Your task to perform on an android device: Open Google Chrome and open the bookmarks view Image 0: 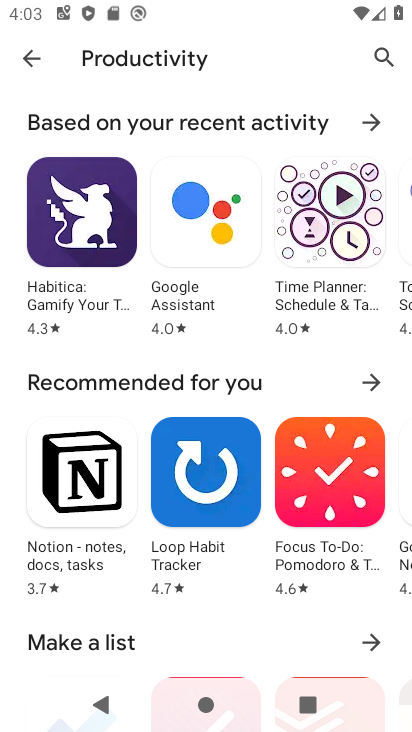
Step 0: press home button
Your task to perform on an android device: Open Google Chrome and open the bookmarks view Image 1: 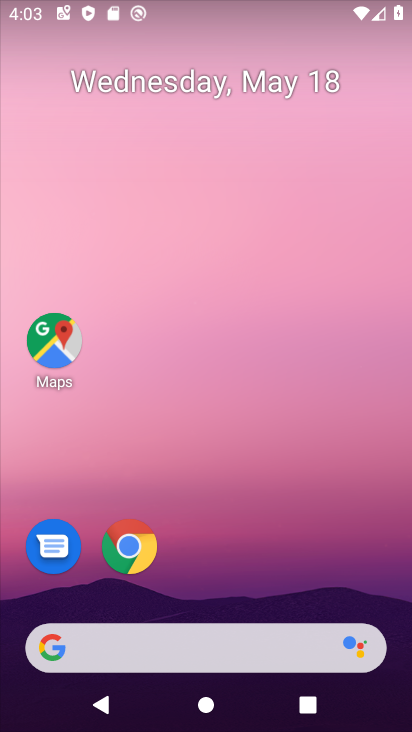
Step 1: click (138, 554)
Your task to perform on an android device: Open Google Chrome and open the bookmarks view Image 2: 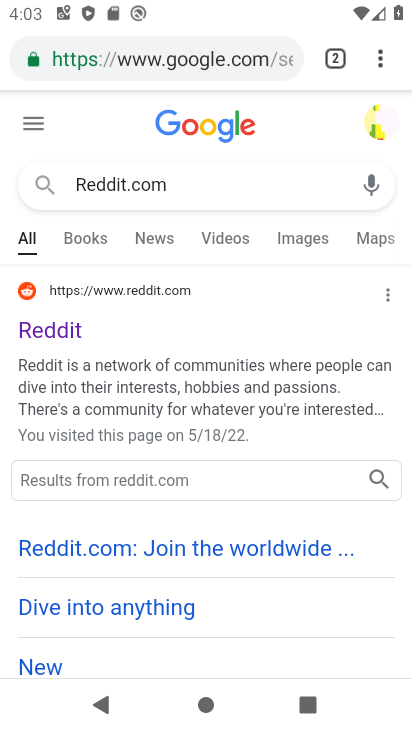
Step 2: click (384, 59)
Your task to perform on an android device: Open Google Chrome and open the bookmarks view Image 3: 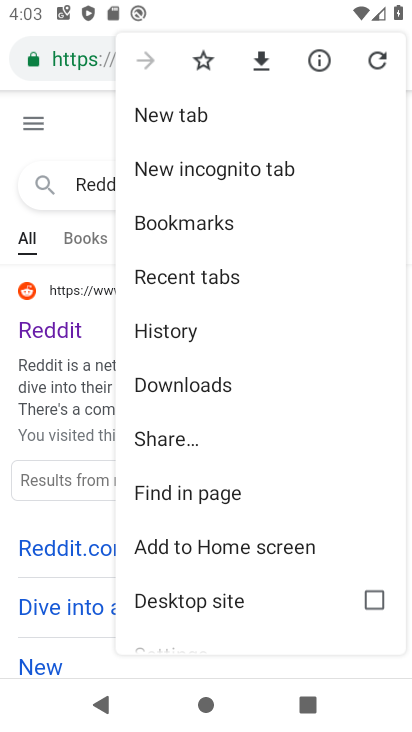
Step 3: click (227, 232)
Your task to perform on an android device: Open Google Chrome and open the bookmarks view Image 4: 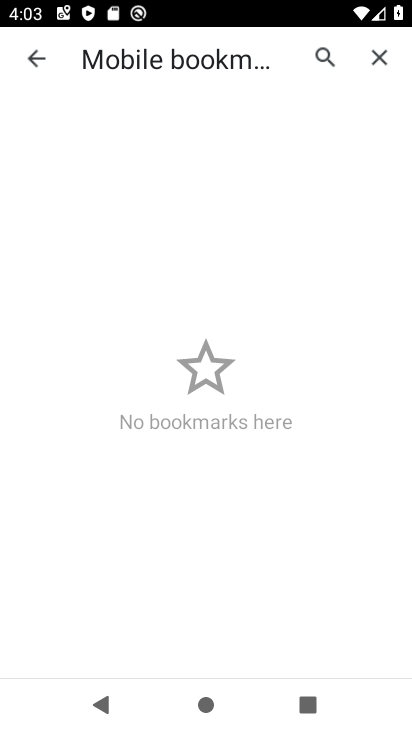
Step 4: task complete